Your task to perform on an android device: all mails in gmail Image 0: 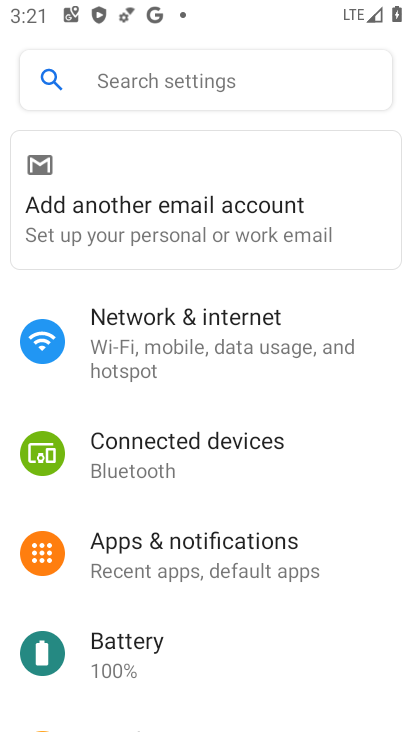
Step 0: press home button
Your task to perform on an android device: all mails in gmail Image 1: 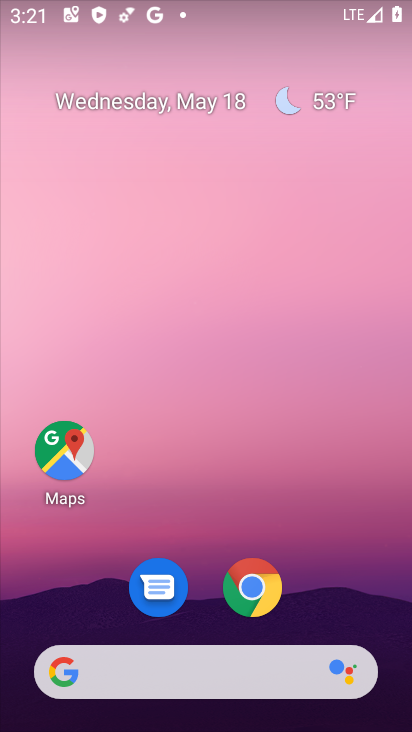
Step 1: drag from (249, 498) to (311, 34)
Your task to perform on an android device: all mails in gmail Image 2: 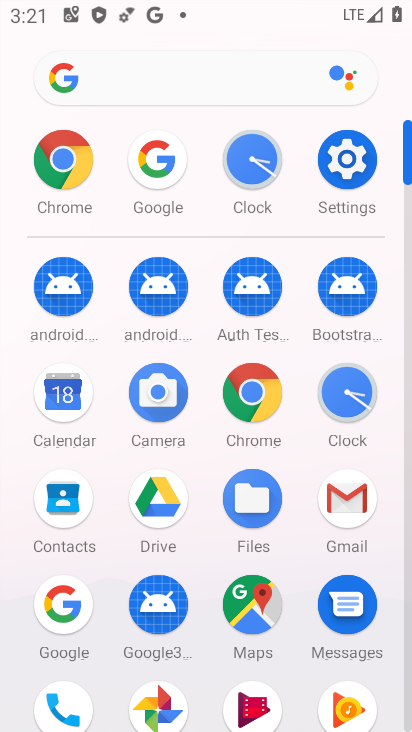
Step 2: click (355, 509)
Your task to perform on an android device: all mails in gmail Image 3: 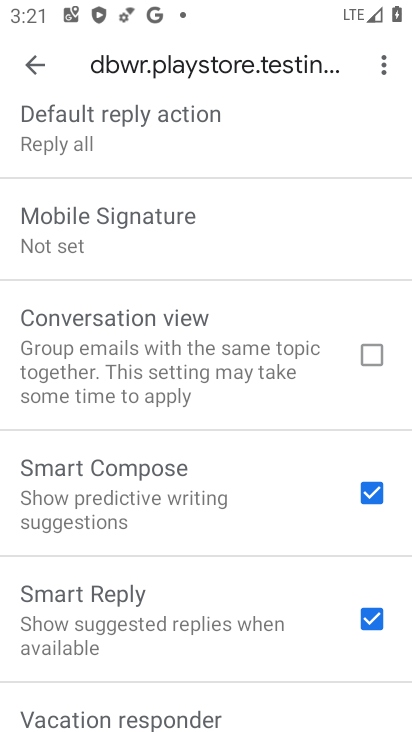
Step 3: click (32, 71)
Your task to perform on an android device: all mails in gmail Image 4: 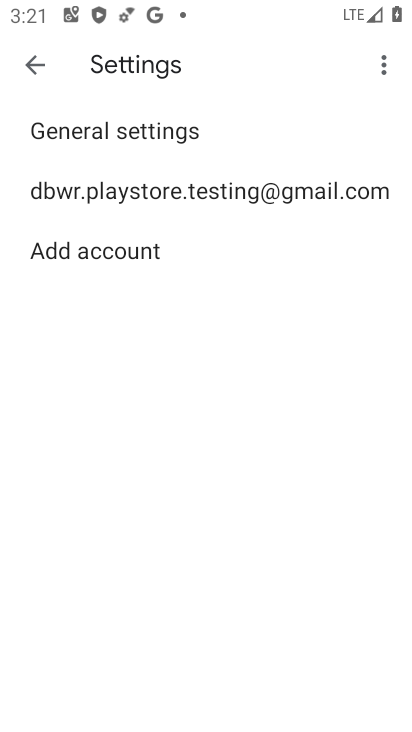
Step 4: click (31, 74)
Your task to perform on an android device: all mails in gmail Image 5: 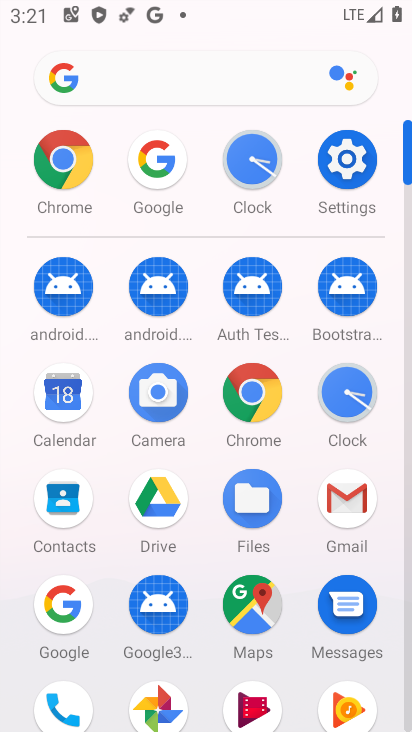
Step 5: click (359, 502)
Your task to perform on an android device: all mails in gmail Image 6: 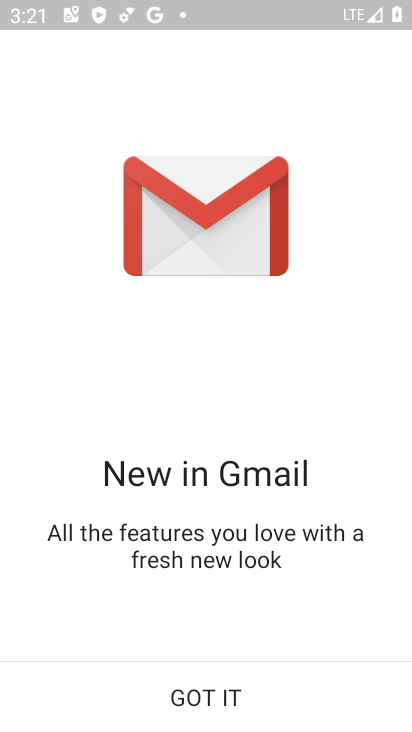
Step 6: click (237, 691)
Your task to perform on an android device: all mails in gmail Image 7: 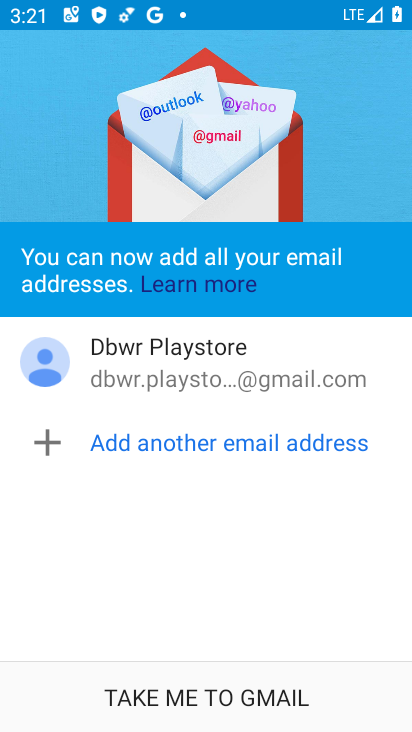
Step 7: click (234, 700)
Your task to perform on an android device: all mails in gmail Image 8: 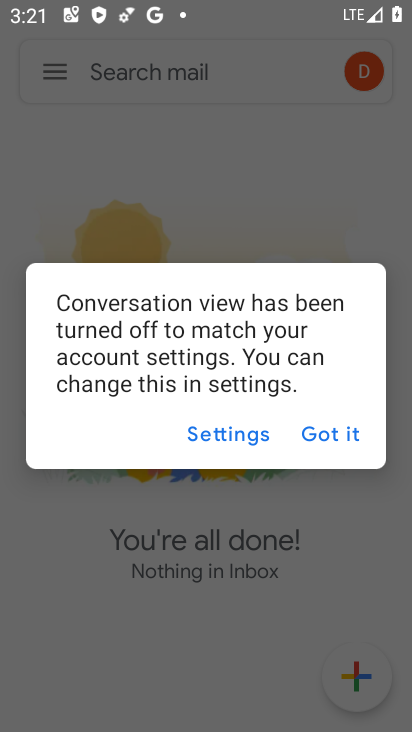
Step 8: click (323, 430)
Your task to perform on an android device: all mails in gmail Image 9: 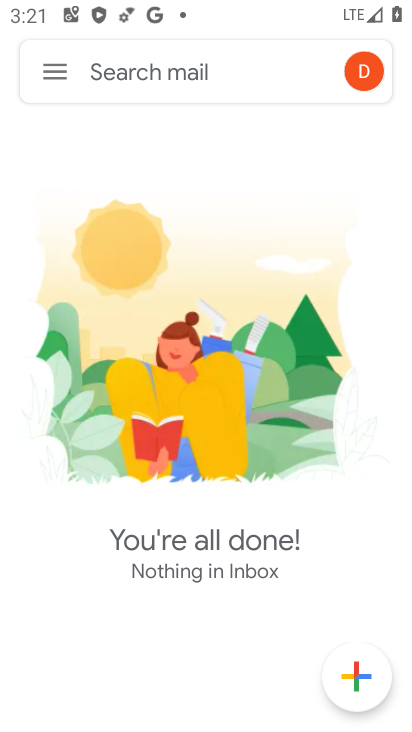
Step 9: click (55, 78)
Your task to perform on an android device: all mails in gmail Image 10: 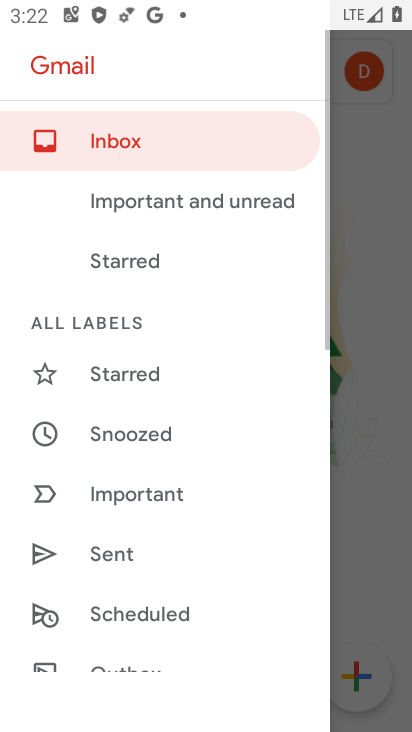
Step 10: drag from (140, 510) to (178, 311)
Your task to perform on an android device: all mails in gmail Image 11: 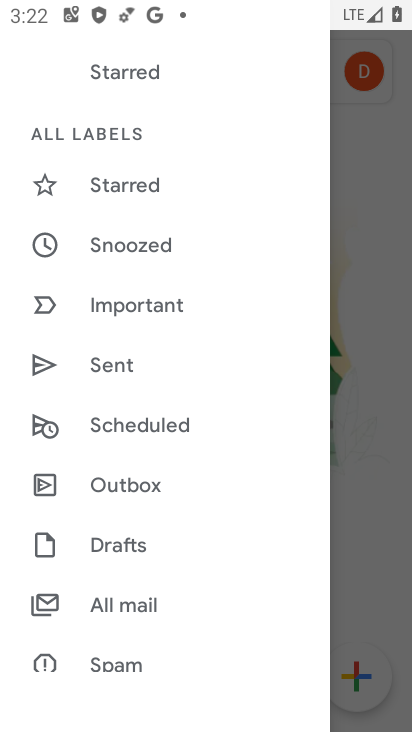
Step 11: click (133, 608)
Your task to perform on an android device: all mails in gmail Image 12: 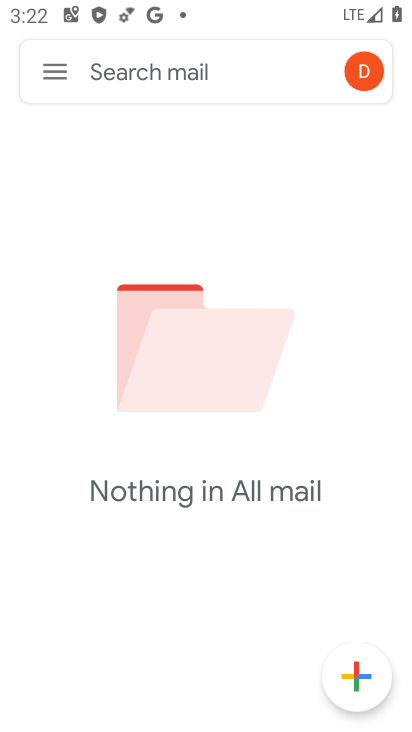
Step 12: task complete